Your task to perform on an android device: Open Wikipedia Image 0: 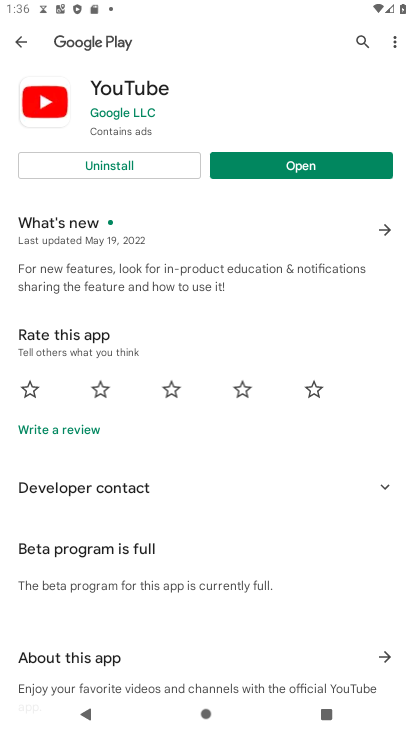
Step 0: press back button
Your task to perform on an android device: Open Wikipedia Image 1: 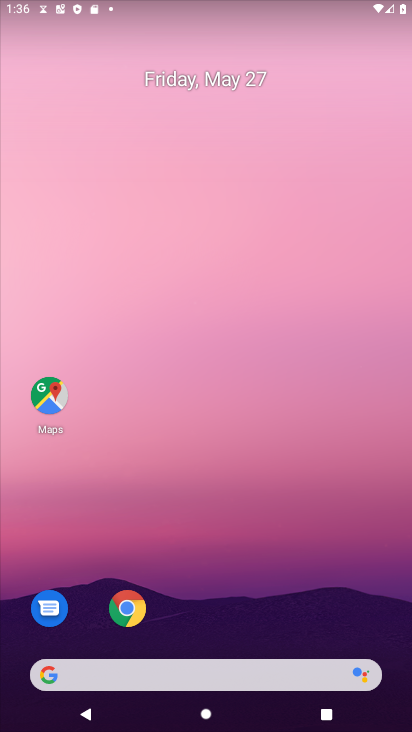
Step 1: click (127, 612)
Your task to perform on an android device: Open Wikipedia Image 2: 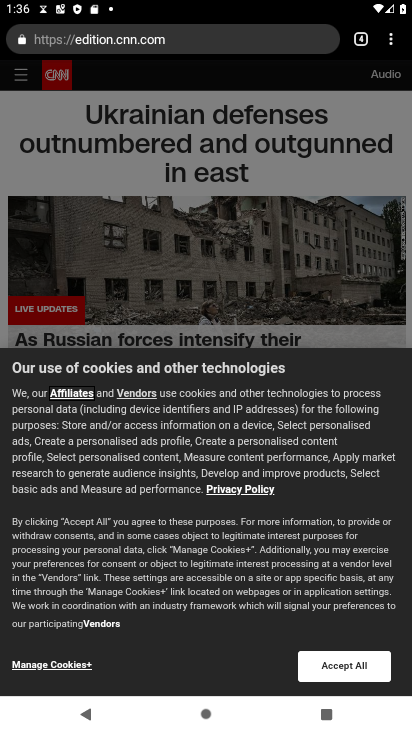
Step 2: click (358, 43)
Your task to perform on an android device: Open Wikipedia Image 3: 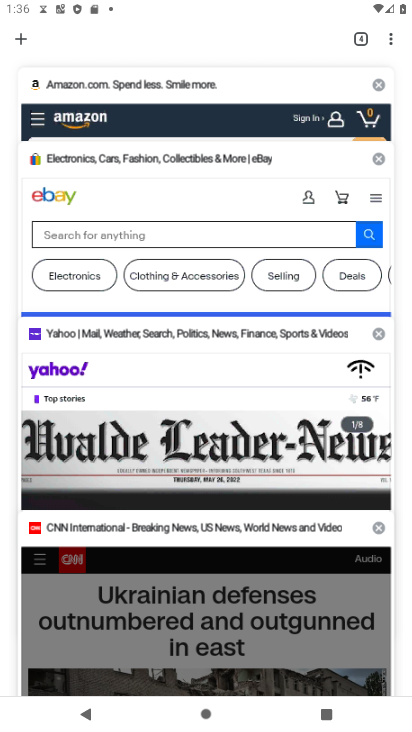
Step 3: click (23, 28)
Your task to perform on an android device: Open Wikipedia Image 4: 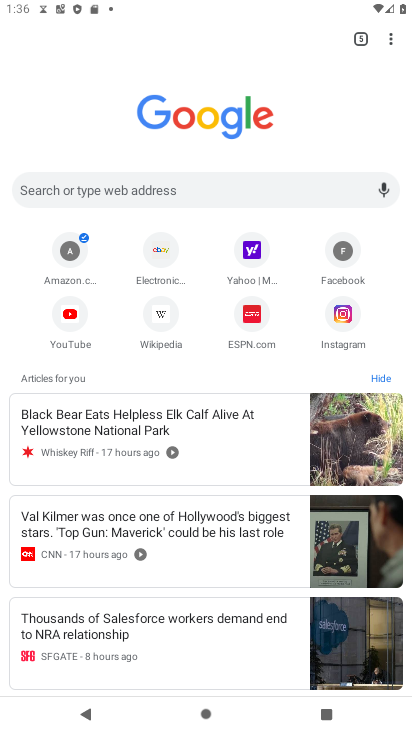
Step 4: click (160, 313)
Your task to perform on an android device: Open Wikipedia Image 5: 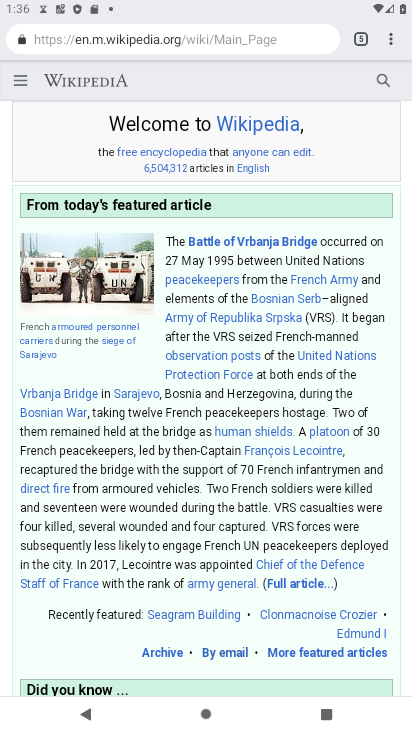
Step 5: task complete